Your task to perform on an android device: turn pop-ups on in chrome Image 0: 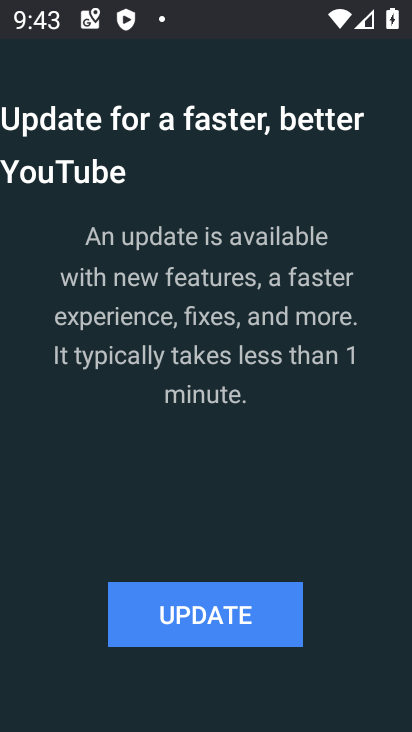
Step 0: press home button
Your task to perform on an android device: turn pop-ups on in chrome Image 1: 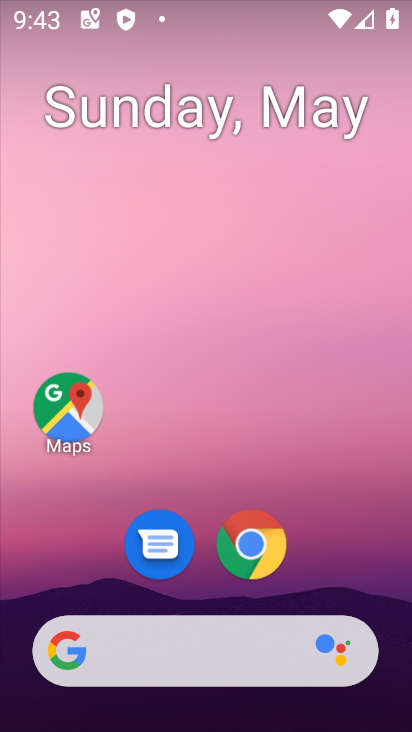
Step 1: click (249, 549)
Your task to perform on an android device: turn pop-ups on in chrome Image 2: 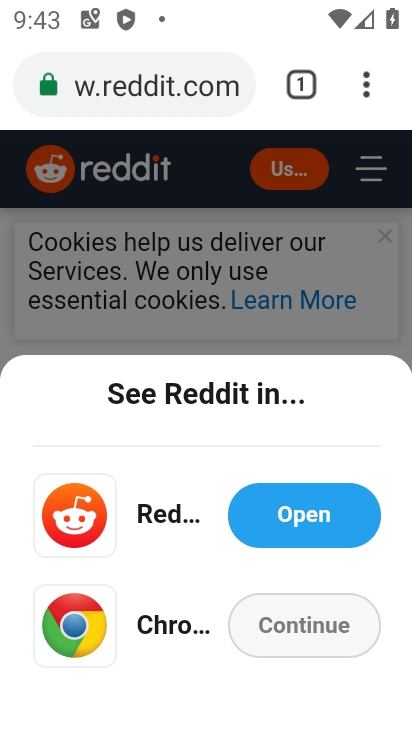
Step 2: drag from (375, 92) to (133, 594)
Your task to perform on an android device: turn pop-ups on in chrome Image 3: 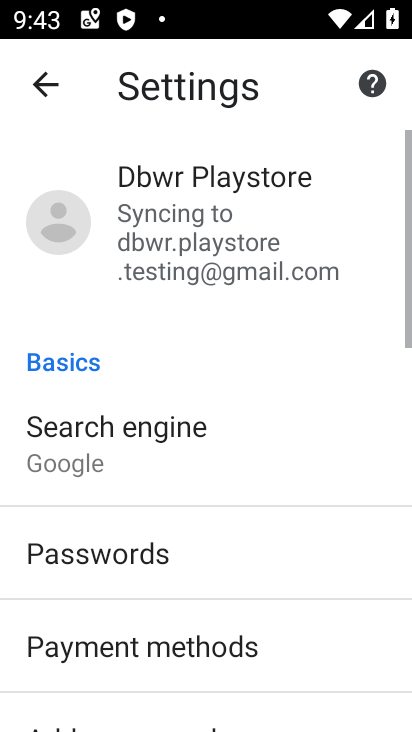
Step 3: drag from (134, 589) to (203, 91)
Your task to perform on an android device: turn pop-ups on in chrome Image 4: 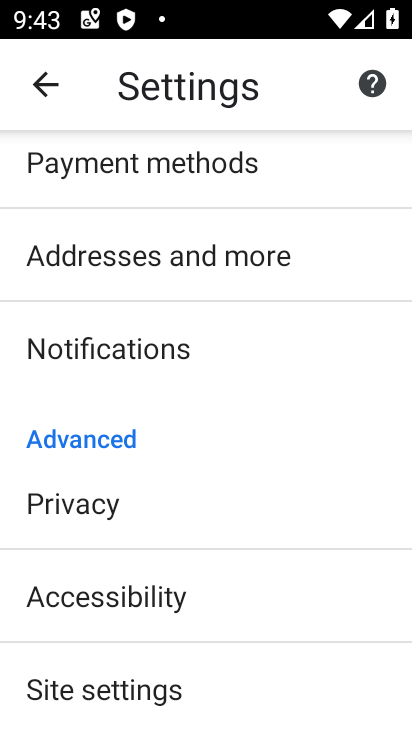
Step 4: drag from (157, 701) to (180, 120)
Your task to perform on an android device: turn pop-ups on in chrome Image 5: 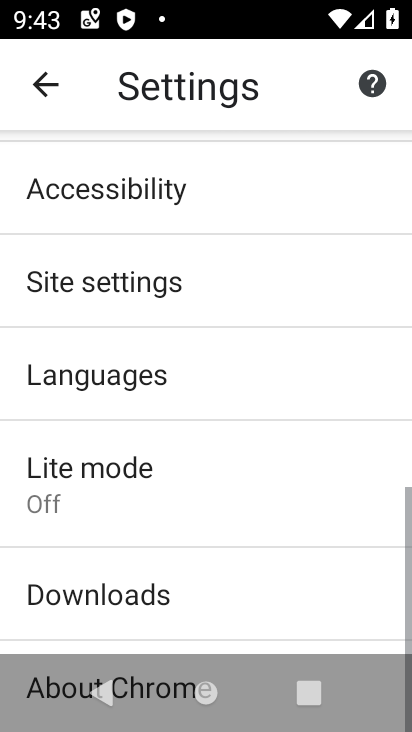
Step 5: drag from (158, 650) to (124, 91)
Your task to perform on an android device: turn pop-ups on in chrome Image 6: 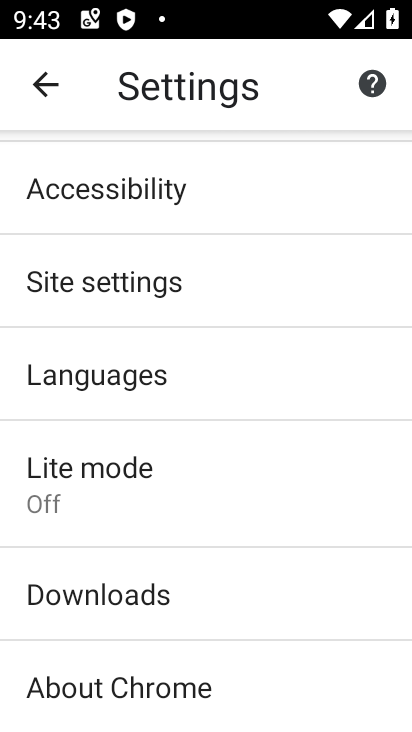
Step 6: drag from (159, 568) to (151, 153)
Your task to perform on an android device: turn pop-ups on in chrome Image 7: 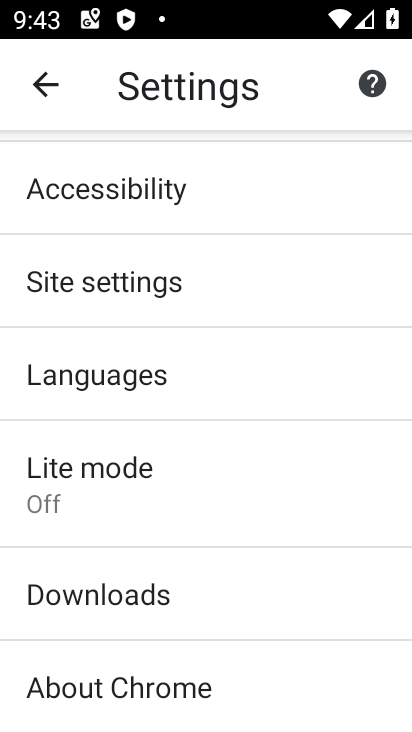
Step 7: click (110, 281)
Your task to perform on an android device: turn pop-ups on in chrome Image 8: 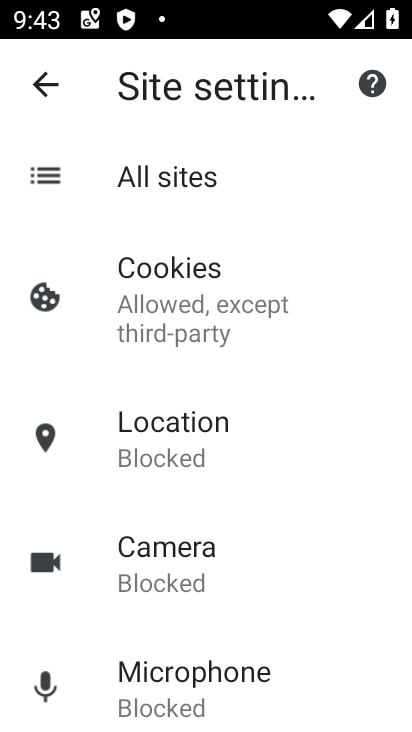
Step 8: drag from (146, 559) to (131, 109)
Your task to perform on an android device: turn pop-ups on in chrome Image 9: 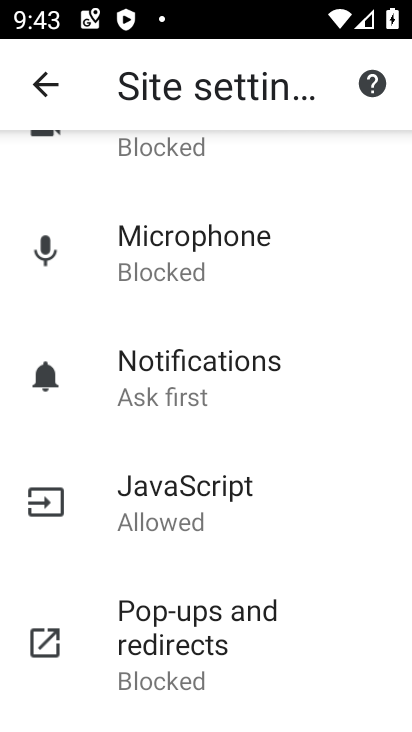
Step 9: click (142, 636)
Your task to perform on an android device: turn pop-ups on in chrome Image 10: 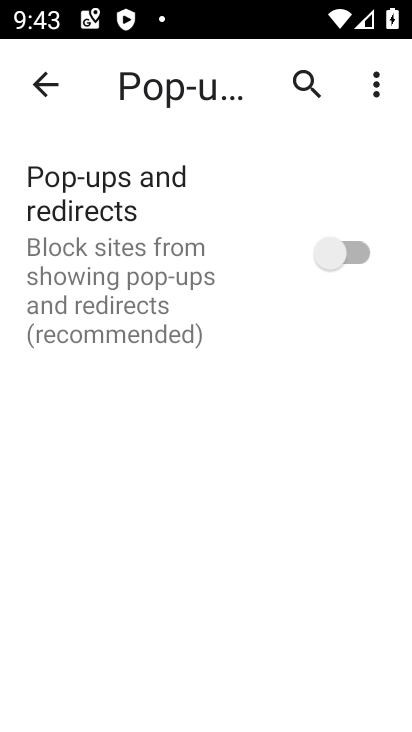
Step 10: click (359, 251)
Your task to perform on an android device: turn pop-ups on in chrome Image 11: 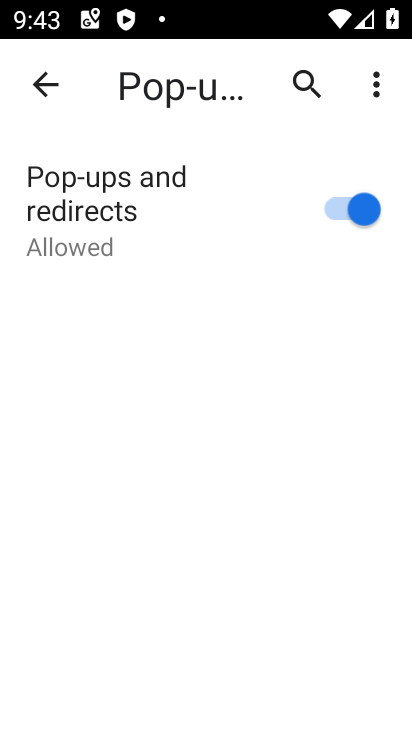
Step 11: task complete